Your task to perform on an android device: check android version Image 0: 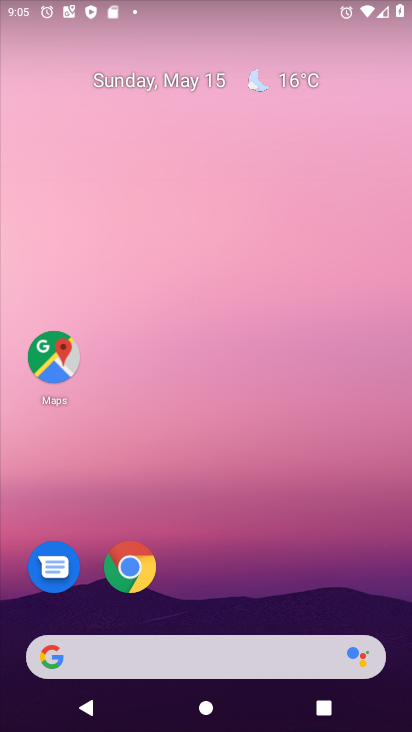
Step 0: drag from (242, 618) to (32, 7)
Your task to perform on an android device: check android version Image 1: 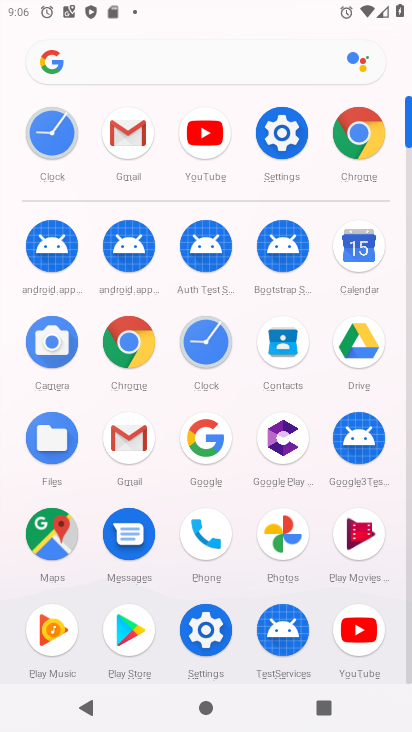
Step 1: click (199, 636)
Your task to perform on an android device: check android version Image 2: 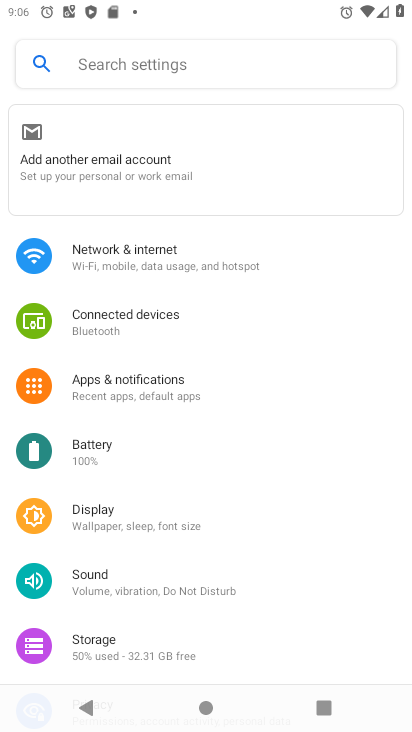
Step 2: drag from (199, 636) to (287, 130)
Your task to perform on an android device: check android version Image 3: 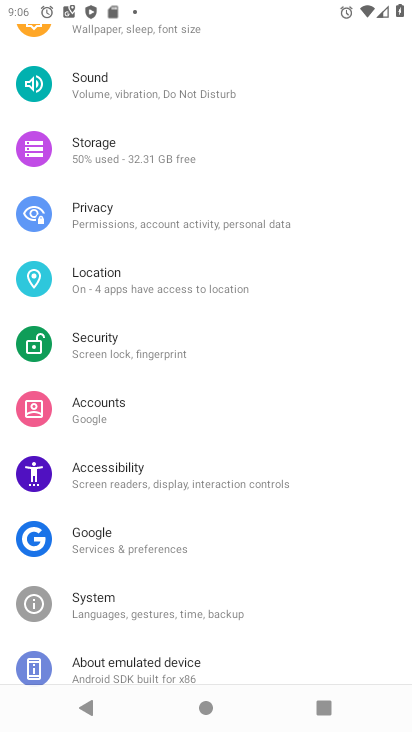
Step 3: click (173, 668)
Your task to perform on an android device: check android version Image 4: 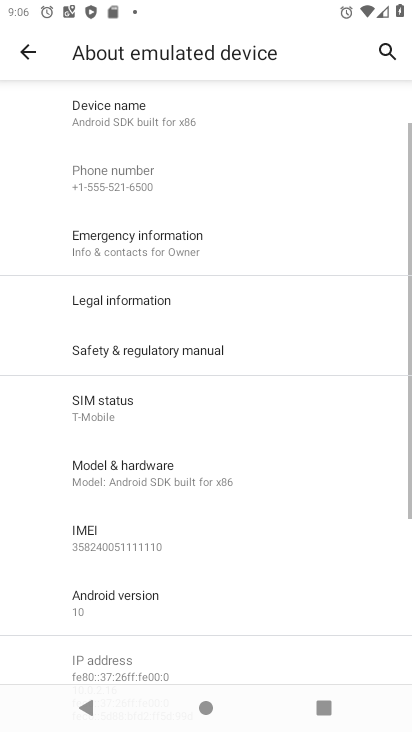
Step 4: click (169, 600)
Your task to perform on an android device: check android version Image 5: 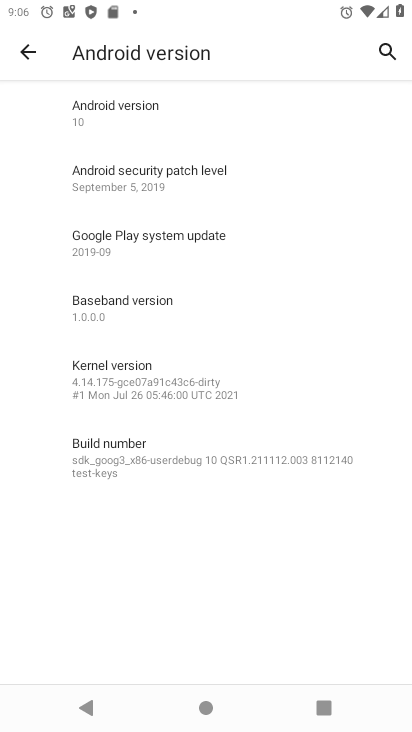
Step 5: task complete